Your task to perform on an android device: manage bookmarks in the chrome app Image 0: 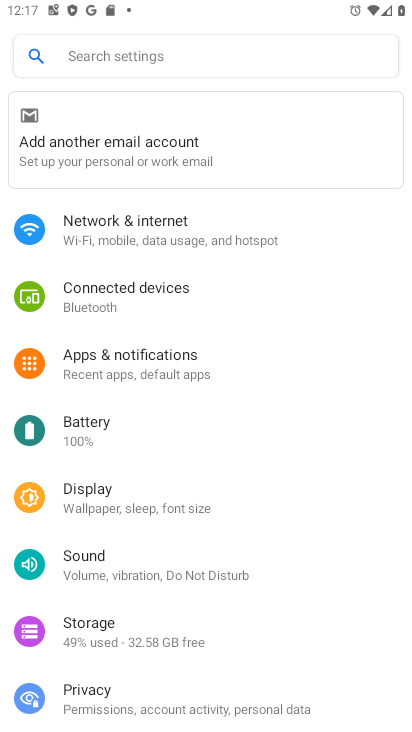
Step 0: press home button
Your task to perform on an android device: manage bookmarks in the chrome app Image 1: 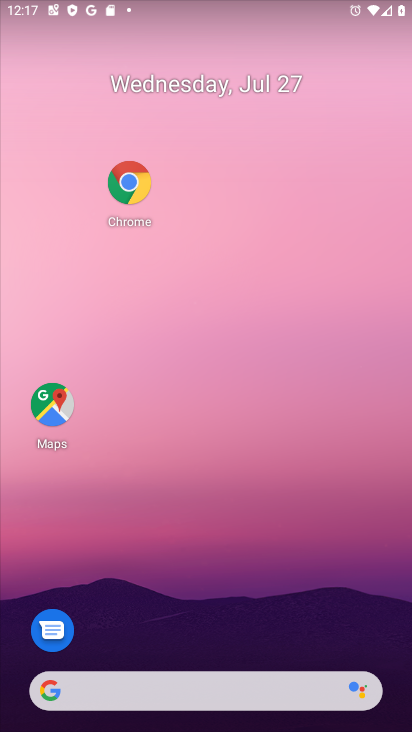
Step 1: click (150, 177)
Your task to perform on an android device: manage bookmarks in the chrome app Image 2: 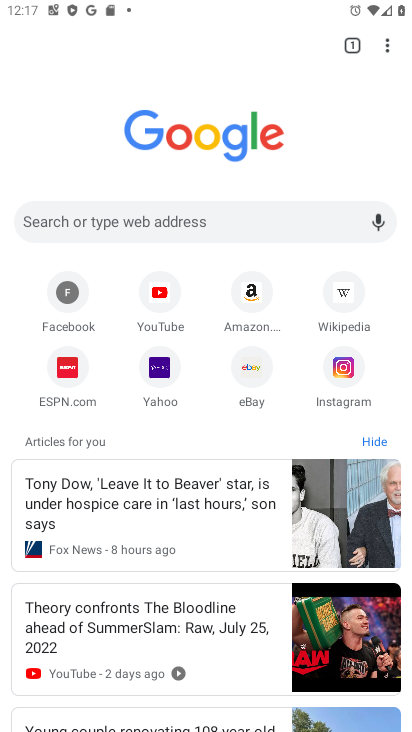
Step 2: click (393, 45)
Your task to perform on an android device: manage bookmarks in the chrome app Image 3: 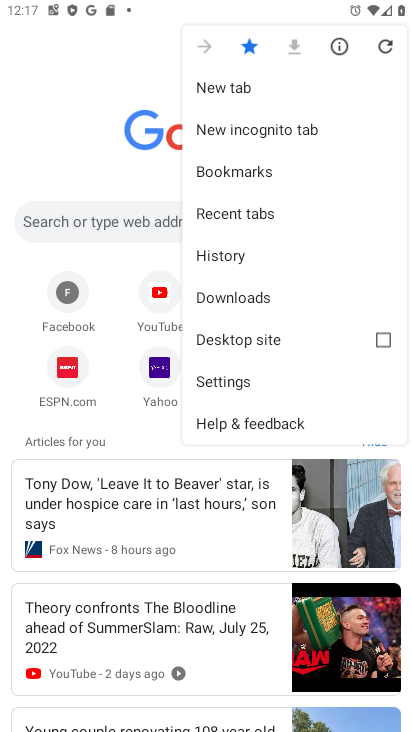
Step 3: click (248, 171)
Your task to perform on an android device: manage bookmarks in the chrome app Image 4: 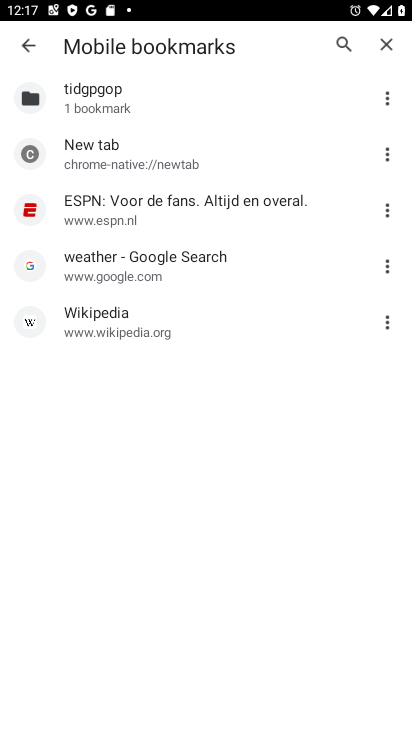
Step 4: click (387, 207)
Your task to perform on an android device: manage bookmarks in the chrome app Image 5: 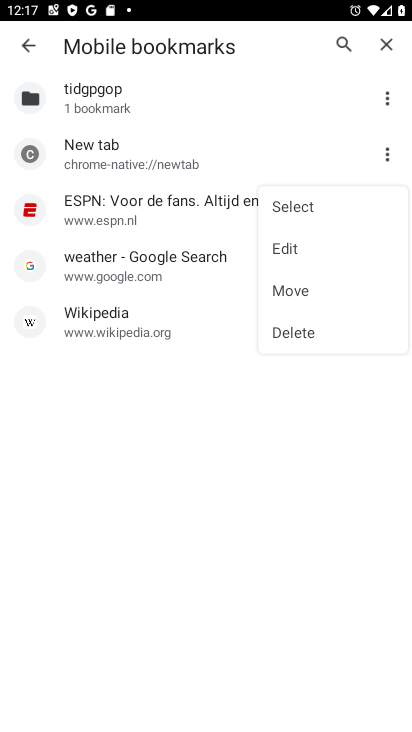
Step 5: click (303, 335)
Your task to perform on an android device: manage bookmarks in the chrome app Image 6: 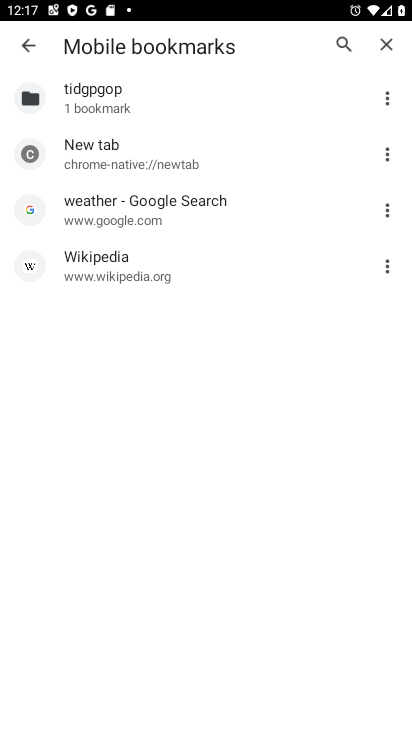
Step 6: task complete